Your task to perform on an android device: When is my next appointment? Image 0: 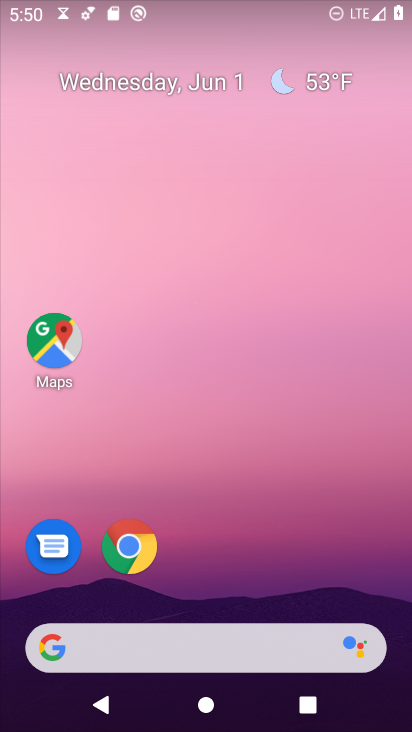
Step 0: drag from (198, 467) to (162, 2)
Your task to perform on an android device: When is my next appointment? Image 1: 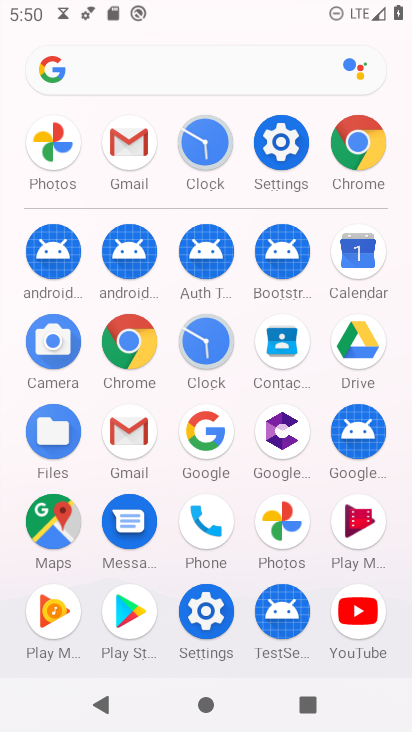
Step 1: drag from (2, 538) to (18, 242)
Your task to perform on an android device: When is my next appointment? Image 2: 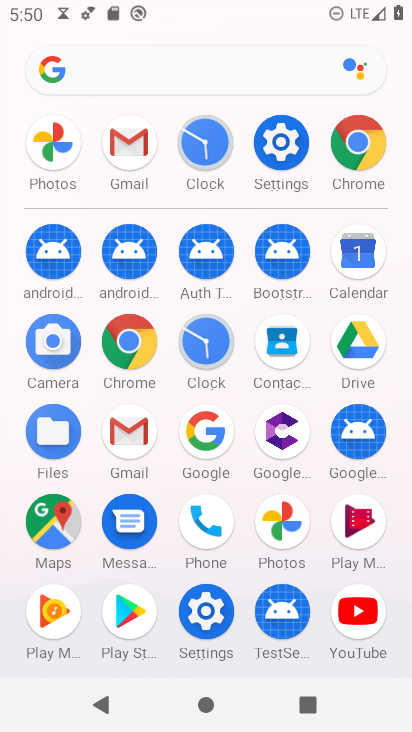
Step 2: click (352, 255)
Your task to perform on an android device: When is my next appointment? Image 3: 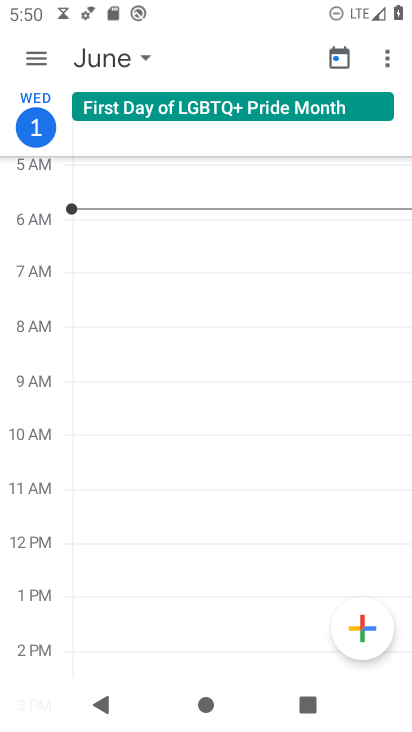
Step 3: click (337, 55)
Your task to perform on an android device: When is my next appointment? Image 4: 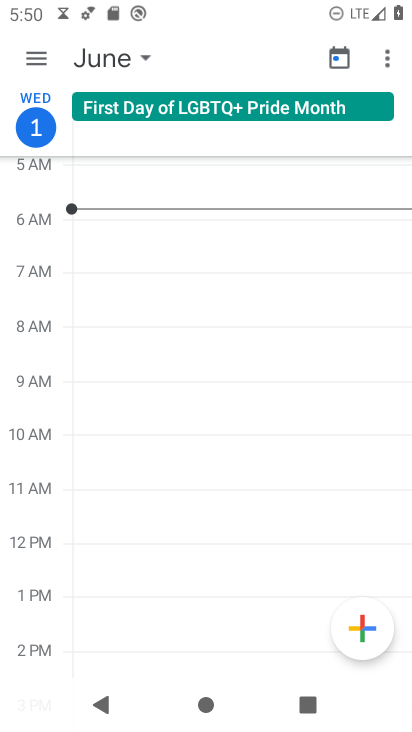
Step 4: click (33, 53)
Your task to perform on an android device: When is my next appointment? Image 5: 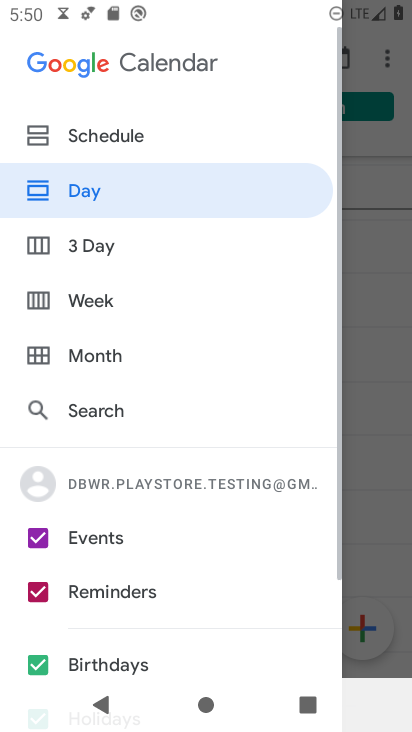
Step 5: click (101, 120)
Your task to perform on an android device: When is my next appointment? Image 6: 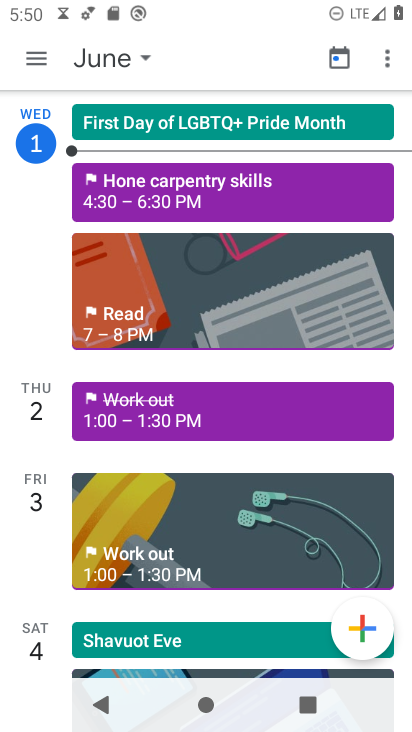
Step 6: task complete